Your task to perform on an android device: Open CNN.com Image 0: 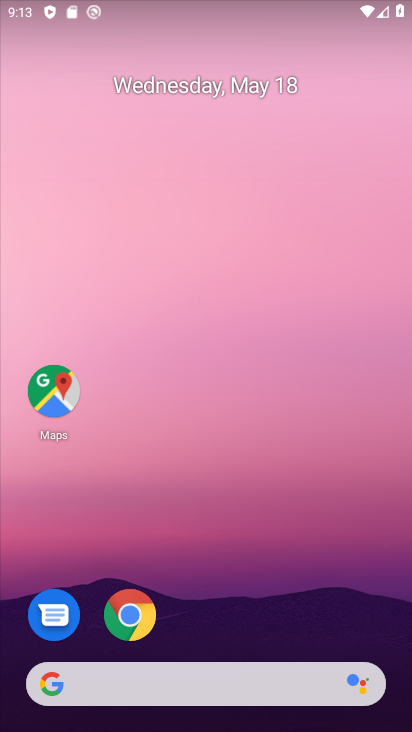
Step 0: drag from (217, 612) to (289, 58)
Your task to perform on an android device: Open CNN.com Image 1: 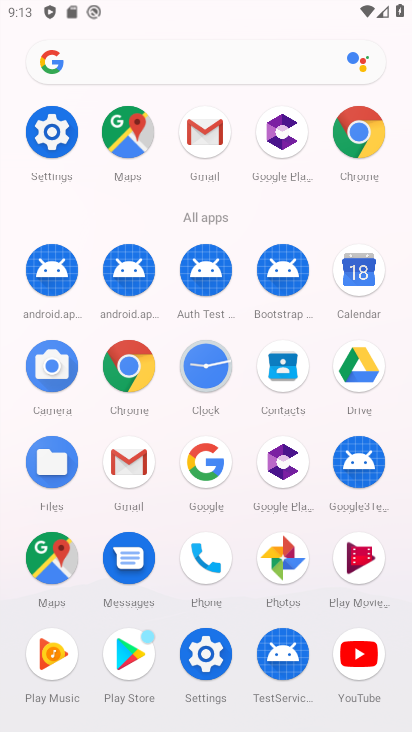
Step 1: click (203, 473)
Your task to perform on an android device: Open CNN.com Image 2: 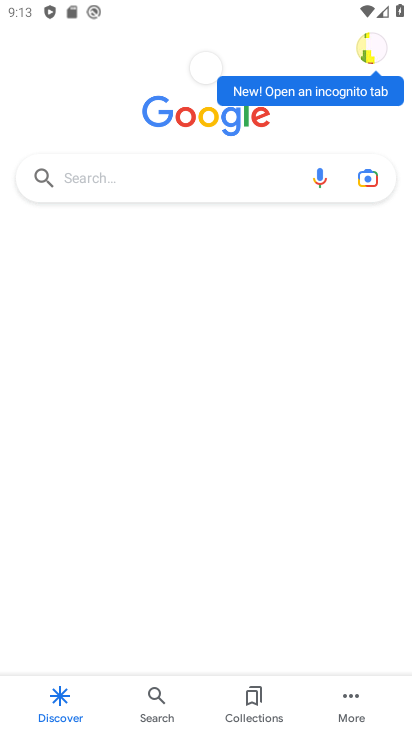
Step 2: click (159, 179)
Your task to perform on an android device: Open CNN.com Image 3: 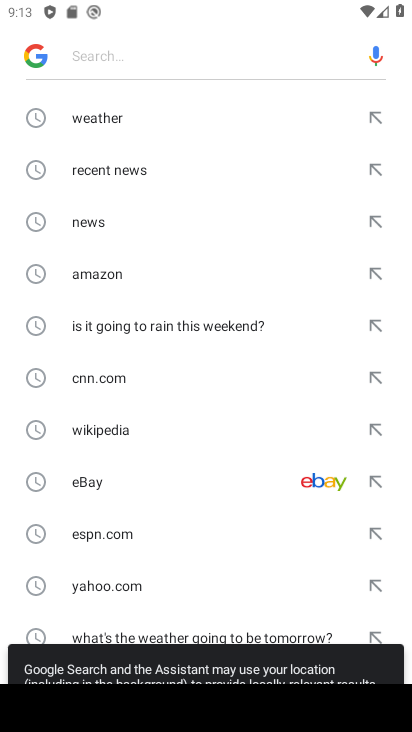
Step 3: click (117, 381)
Your task to perform on an android device: Open CNN.com Image 4: 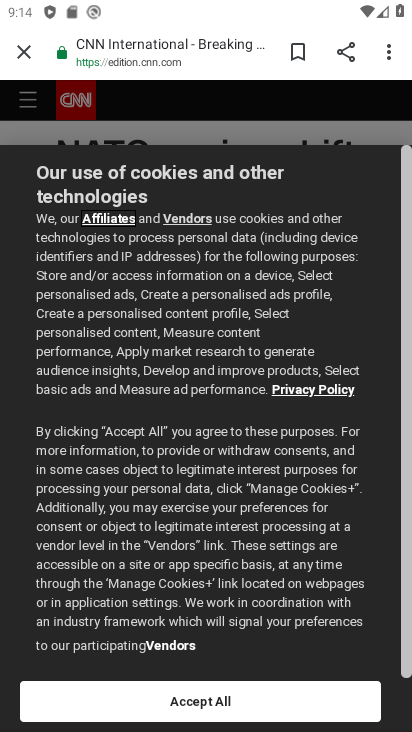
Step 4: task complete